Your task to perform on an android device: open a new tab in the chrome app Image 0: 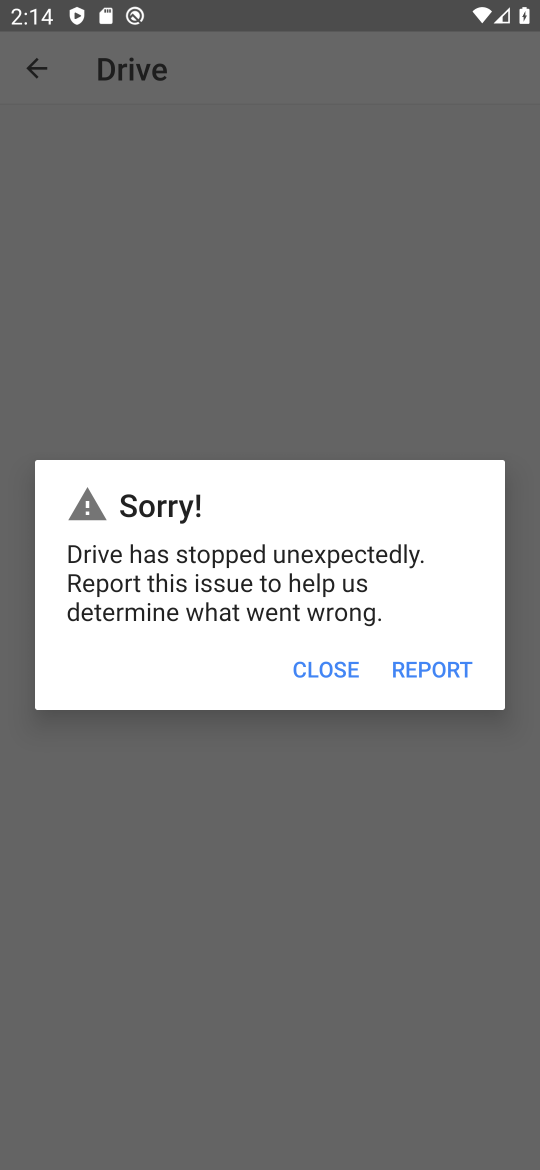
Step 0: press home button
Your task to perform on an android device: open a new tab in the chrome app Image 1: 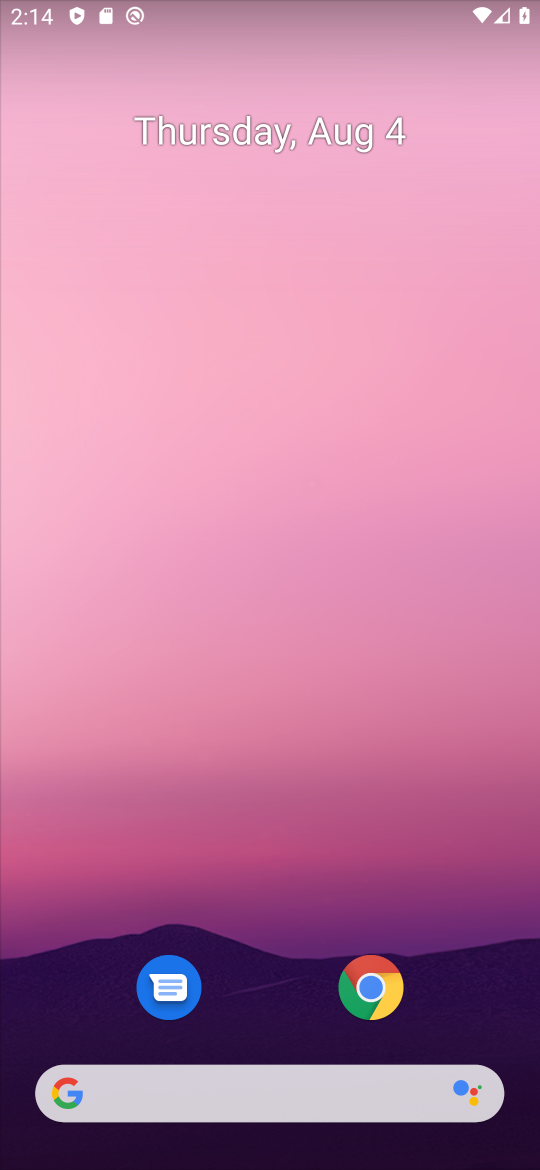
Step 1: drag from (489, 981) to (268, 53)
Your task to perform on an android device: open a new tab in the chrome app Image 2: 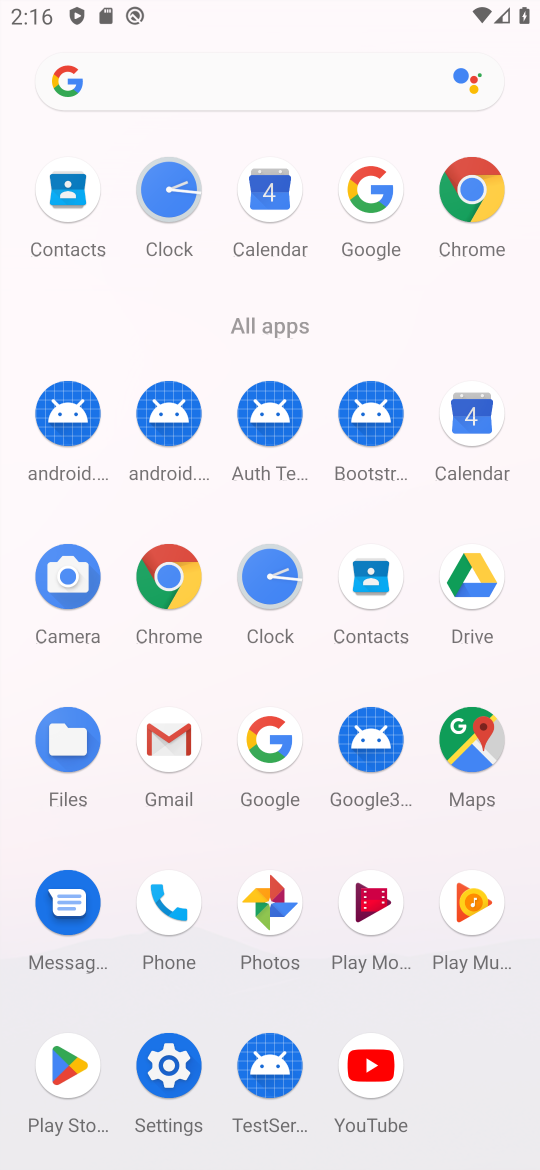
Step 2: click (157, 568)
Your task to perform on an android device: open a new tab in the chrome app Image 3: 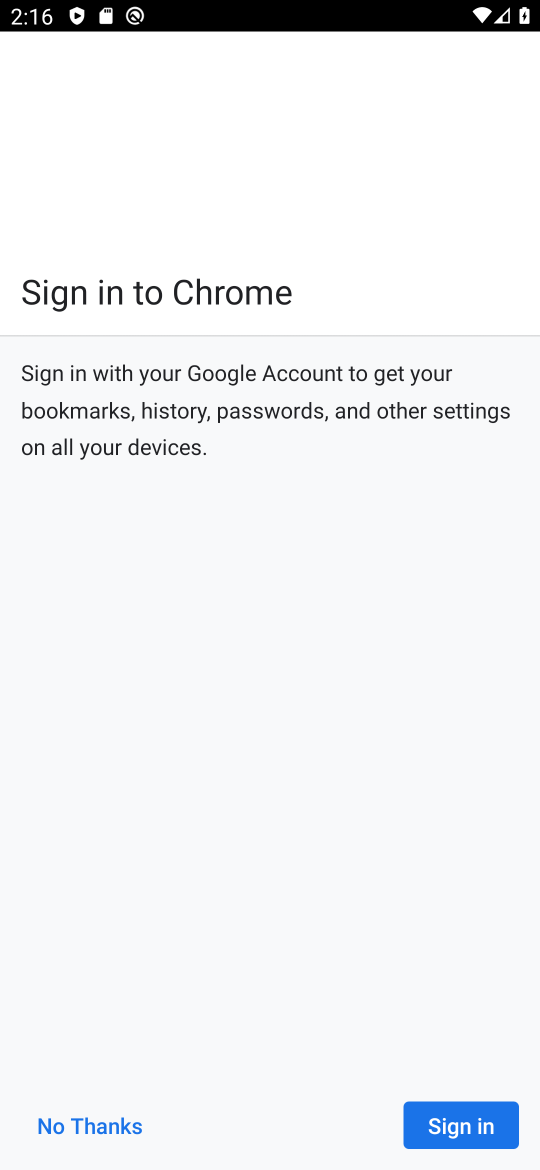
Step 3: task complete